Your task to perform on an android device: show emergency info Image 0: 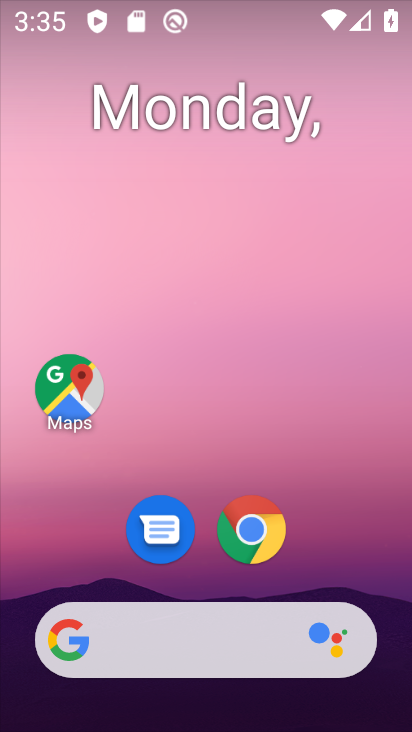
Step 0: drag from (211, 520) to (281, 101)
Your task to perform on an android device: show emergency info Image 1: 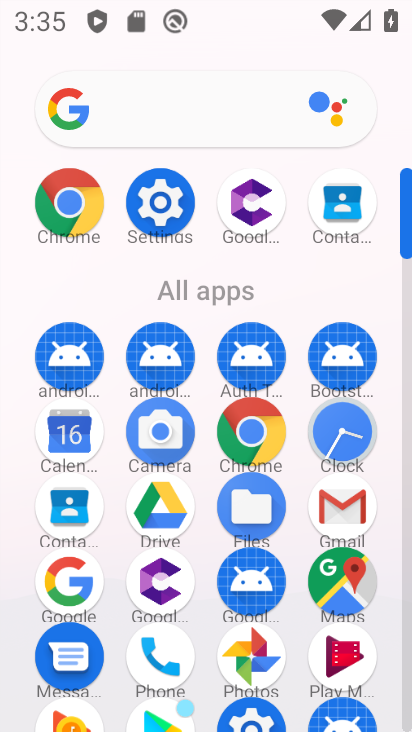
Step 1: click (176, 219)
Your task to perform on an android device: show emergency info Image 2: 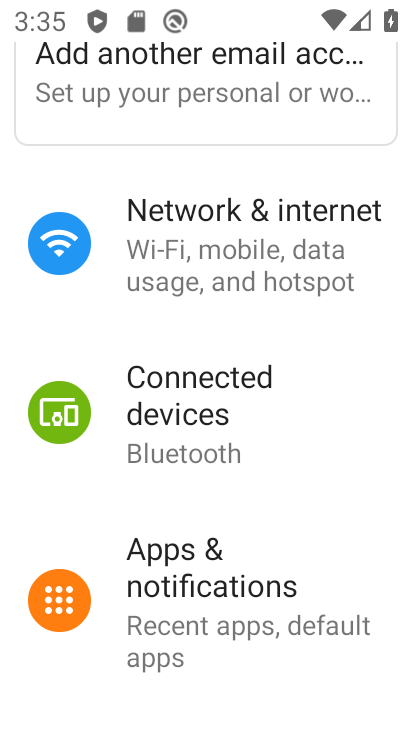
Step 2: drag from (158, 572) to (207, 85)
Your task to perform on an android device: show emergency info Image 3: 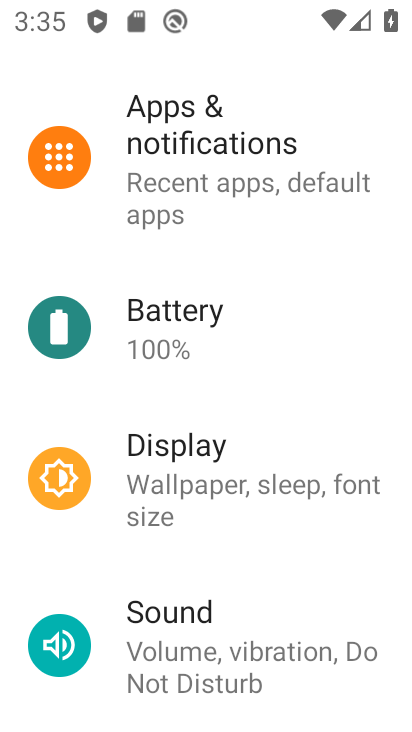
Step 3: drag from (225, 593) to (297, 15)
Your task to perform on an android device: show emergency info Image 4: 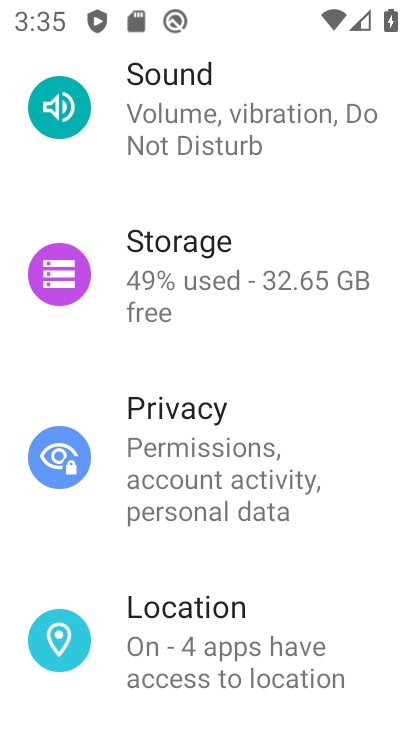
Step 4: drag from (224, 611) to (339, 95)
Your task to perform on an android device: show emergency info Image 5: 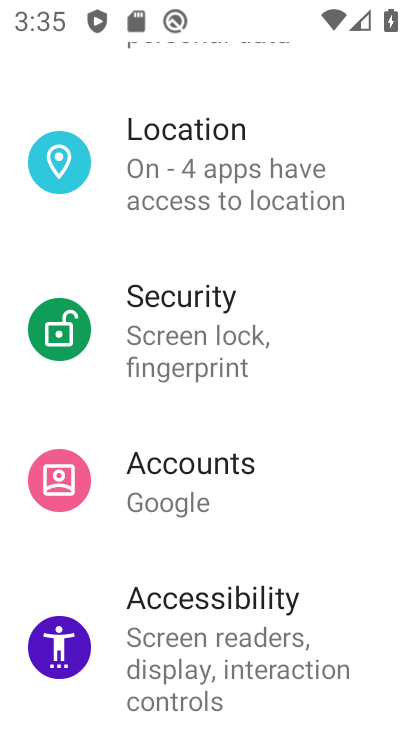
Step 5: drag from (184, 555) to (276, 63)
Your task to perform on an android device: show emergency info Image 6: 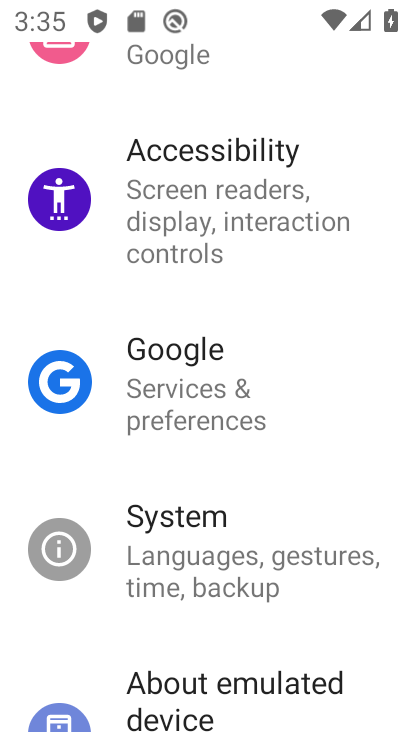
Step 6: drag from (197, 595) to (370, 0)
Your task to perform on an android device: show emergency info Image 7: 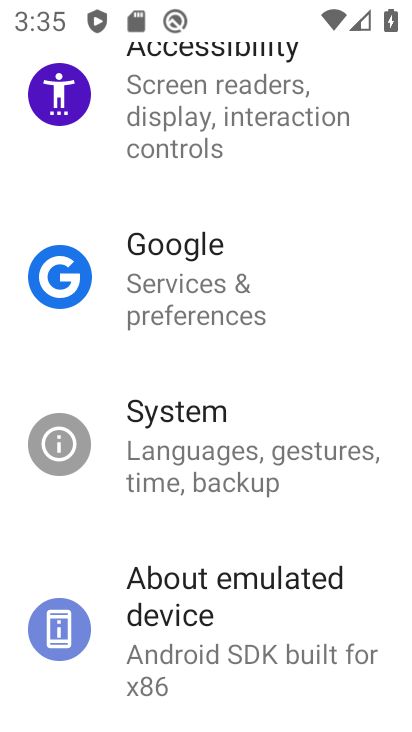
Step 7: drag from (200, 608) to (277, 177)
Your task to perform on an android device: show emergency info Image 8: 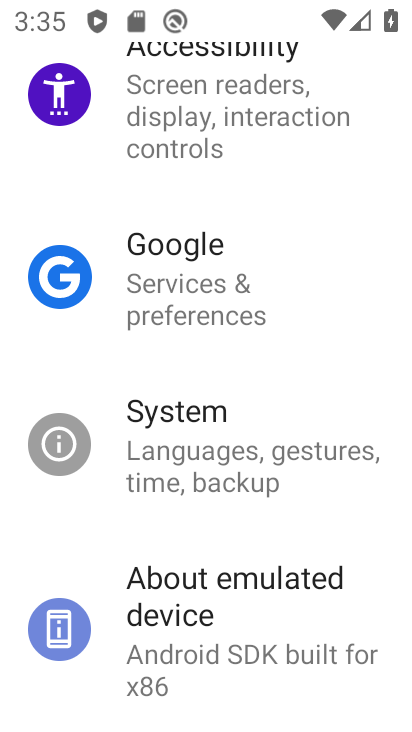
Step 8: click (214, 598)
Your task to perform on an android device: show emergency info Image 9: 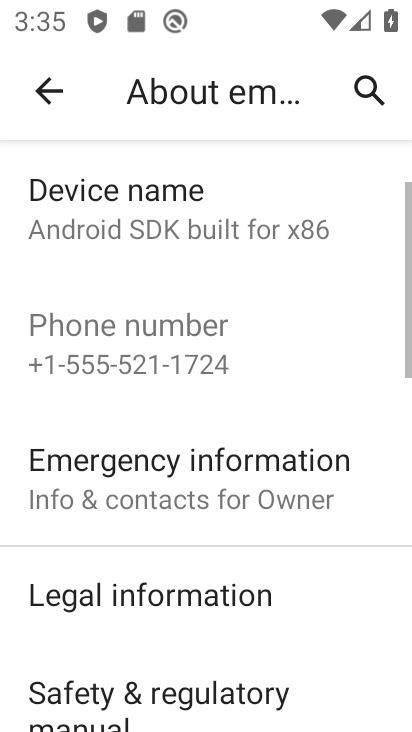
Step 9: click (207, 482)
Your task to perform on an android device: show emergency info Image 10: 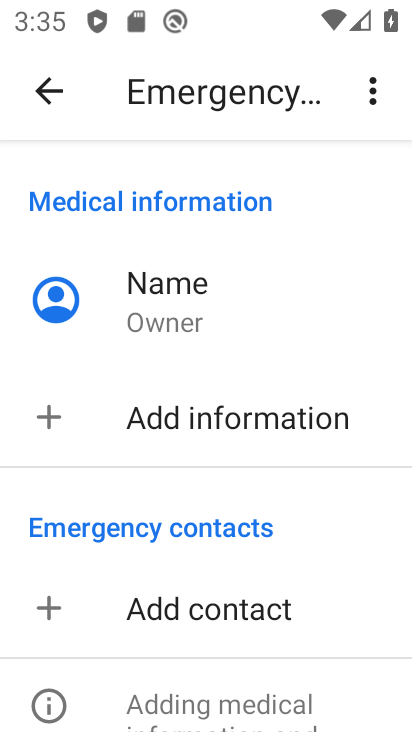
Step 10: task complete